Your task to perform on an android device: toggle priority inbox in the gmail app Image 0: 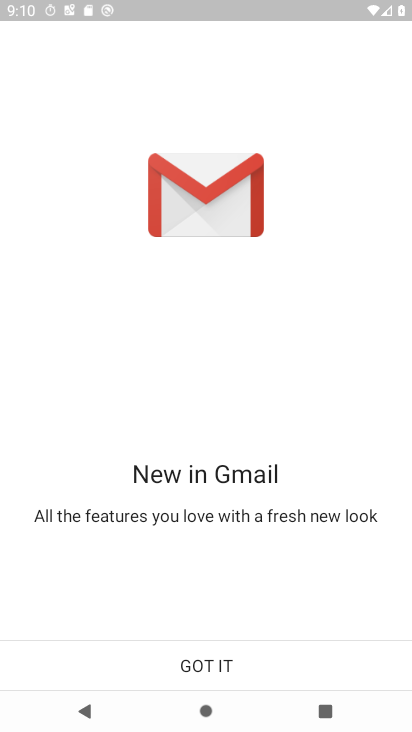
Step 0: press home button
Your task to perform on an android device: toggle priority inbox in the gmail app Image 1: 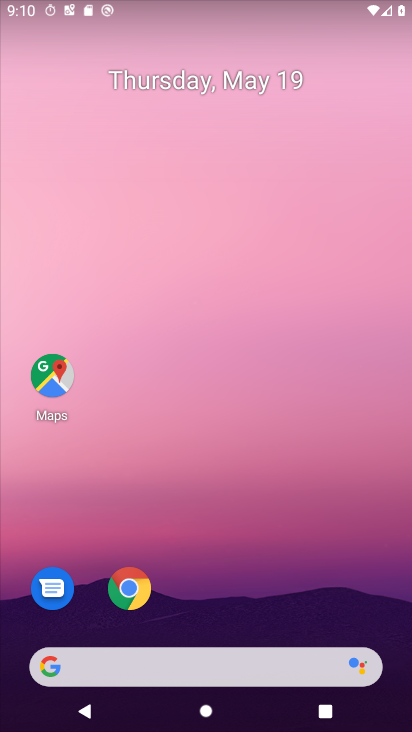
Step 1: drag from (154, 664) to (353, 118)
Your task to perform on an android device: toggle priority inbox in the gmail app Image 2: 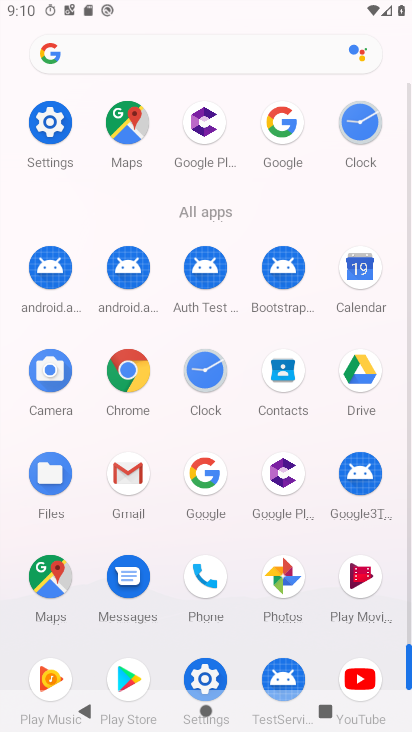
Step 2: click (127, 481)
Your task to perform on an android device: toggle priority inbox in the gmail app Image 3: 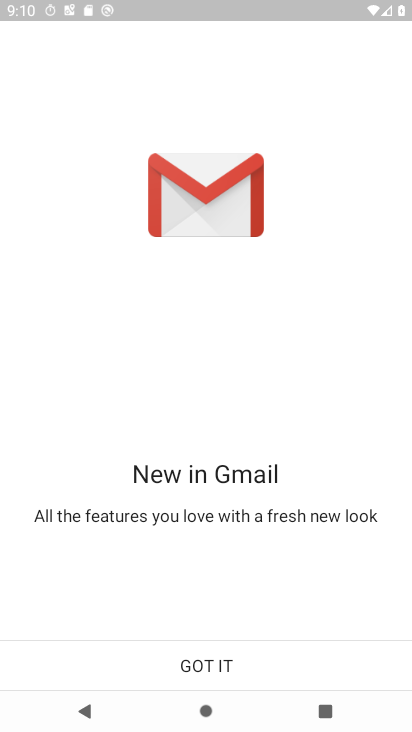
Step 3: click (207, 667)
Your task to perform on an android device: toggle priority inbox in the gmail app Image 4: 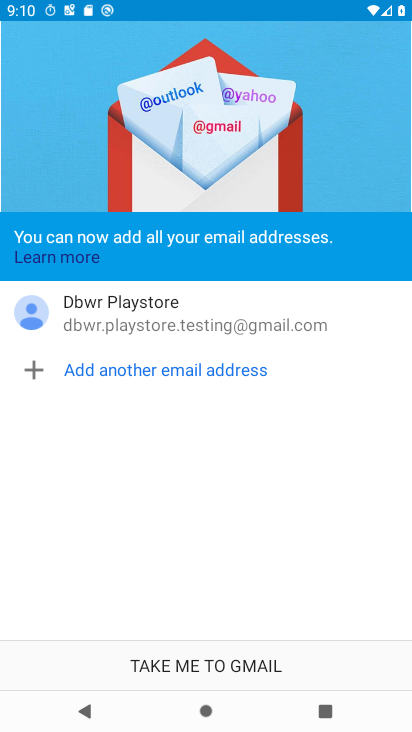
Step 4: click (210, 664)
Your task to perform on an android device: toggle priority inbox in the gmail app Image 5: 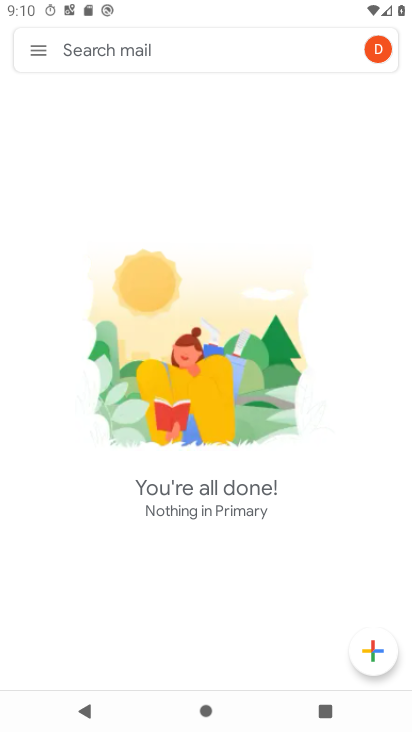
Step 5: click (40, 52)
Your task to perform on an android device: toggle priority inbox in the gmail app Image 6: 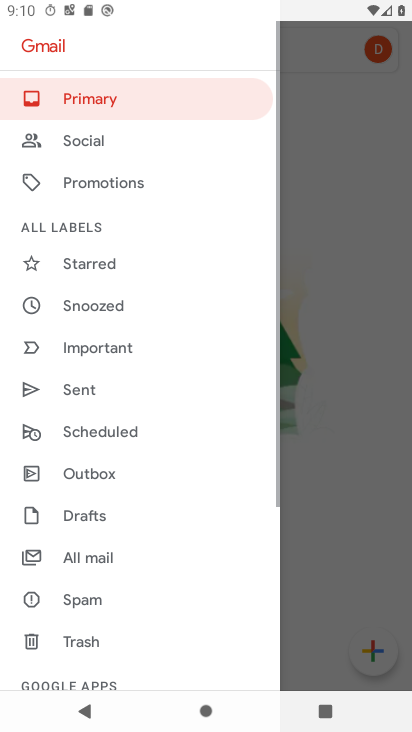
Step 6: drag from (157, 637) to (277, 180)
Your task to perform on an android device: toggle priority inbox in the gmail app Image 7: 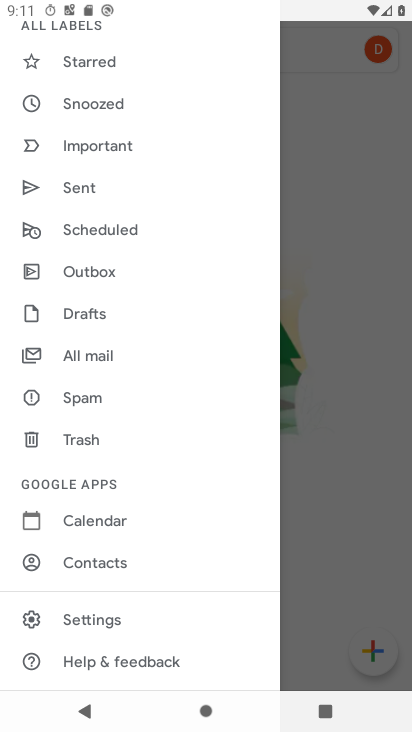
Step 7: click (108, 626)
Your task to perform on an android device: toggle priority inbox in the gmail app Image 8: 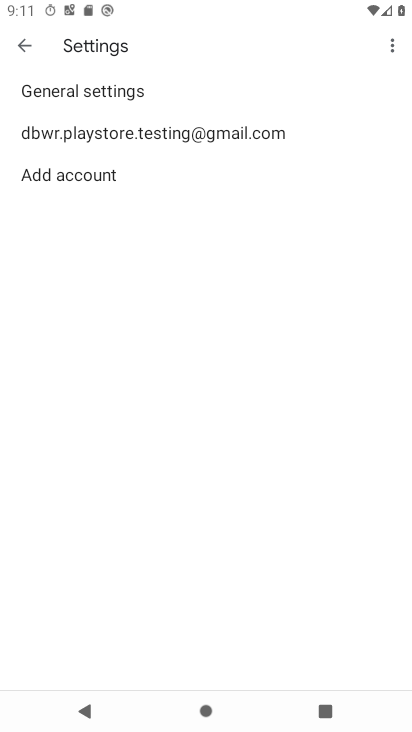
Step 8: click (190, 135)
Your task to perform on an android device: toggle priority inbox in the gmail app Image 9: 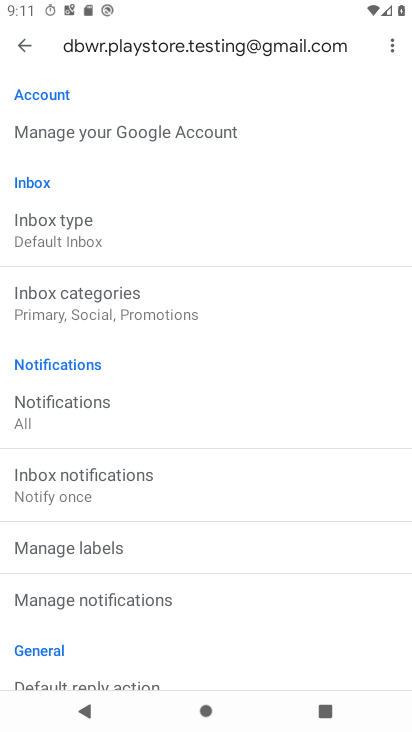
Step 9: click (89, 239)
Your task to perform on an android device: toggle priority inbox in the gmail app Image 10: 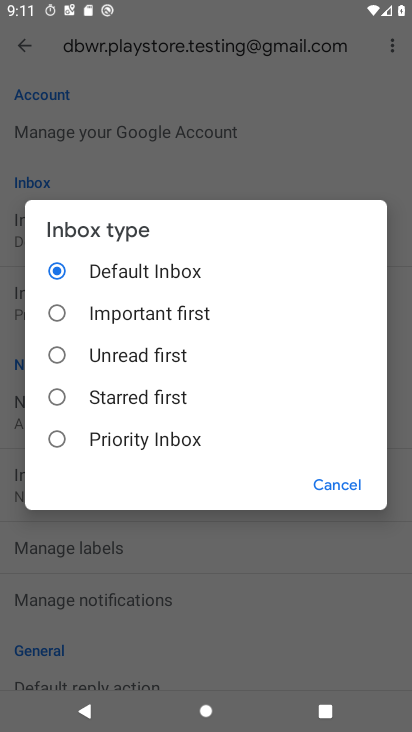
Step 10: click (57, 440)
Your task to perform on an android device: toggle priority inbox in the gmail app Image 11: 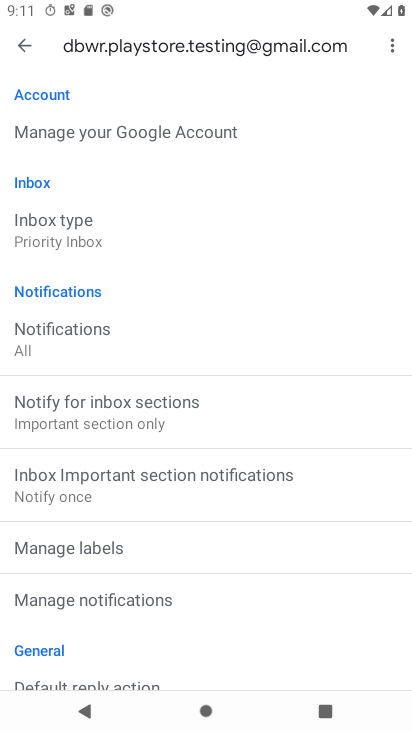
Step 11: task complete